Your task to perform on an android device: toggle location history Image 0: 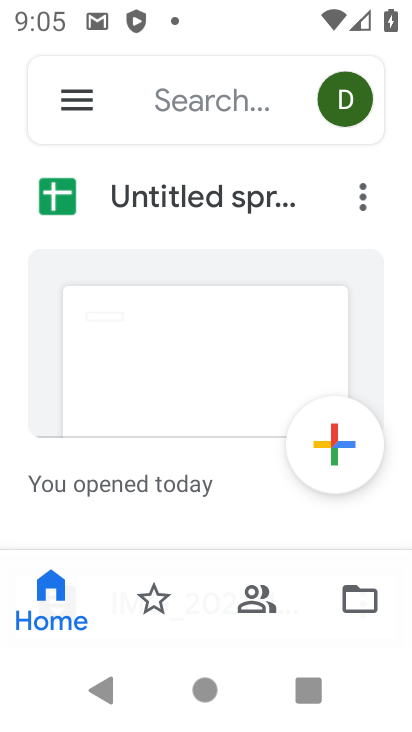
Step 0: press home button
Your task to perform on an android device: toggle location history Image 1: 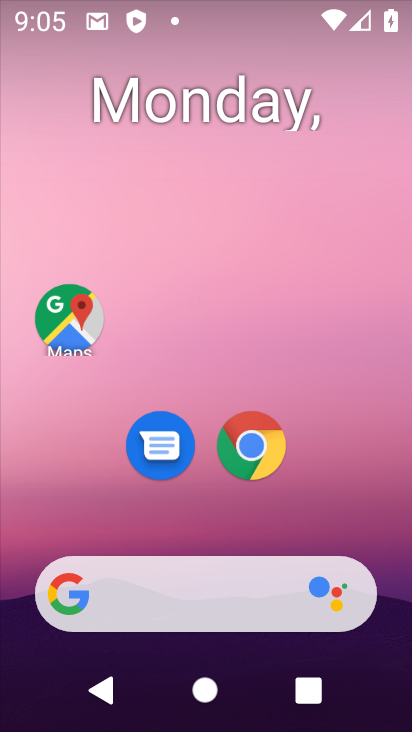
Step 1: drag from (245, 719) to (249, 39)
Your task to perform on an android device: toggle location history Image 2: 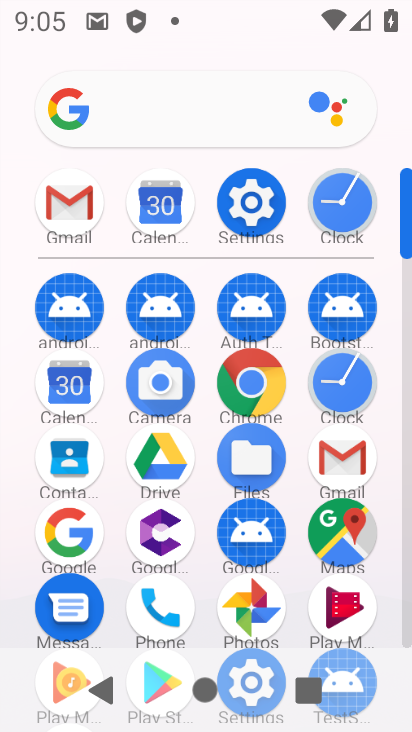
Step 2: click (249, 193)
Your task to perform on an android device: toggle location history Image 3: 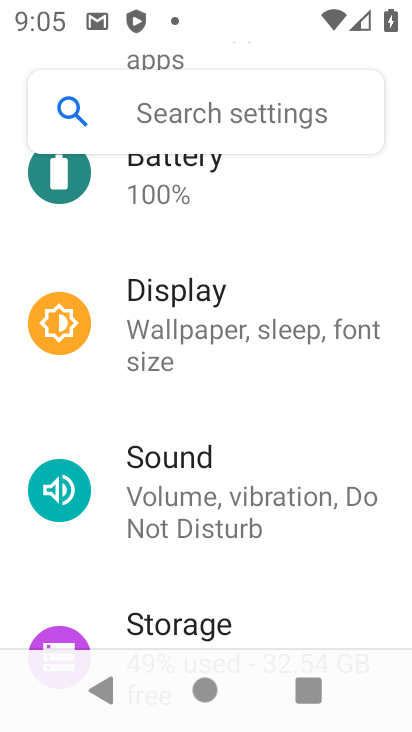
Step 3: drag from (251, 580) to (242, 187)
Your task to perform on an android device: toggle location history Image 4: 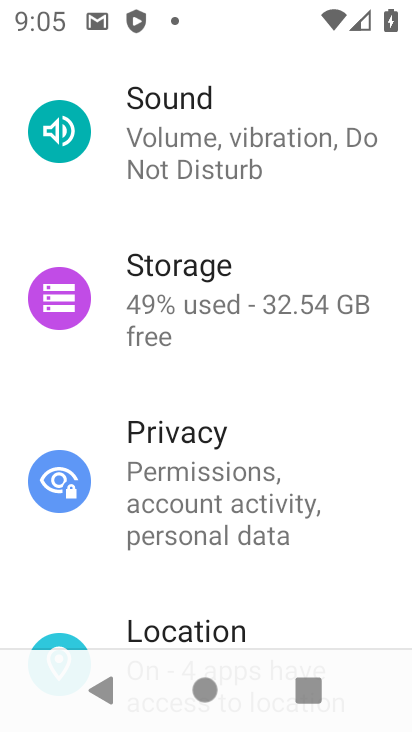
Step 4: click (248, 628)
Your task to perform on an android device: toggle location history Image 5: 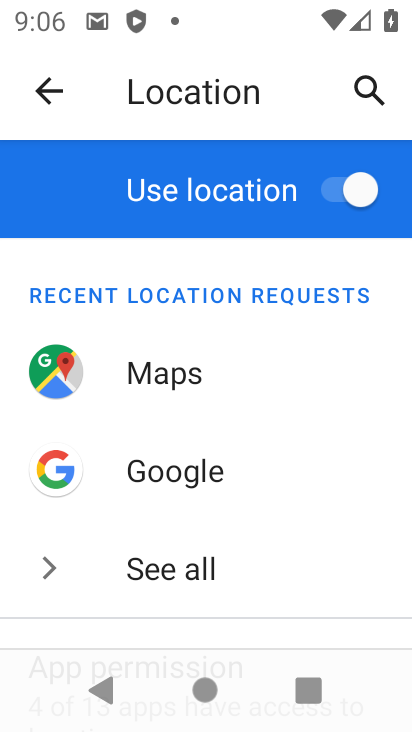
Step 5: click (214, 82)
Your task to perform on an android device: toggle location history Image 6: 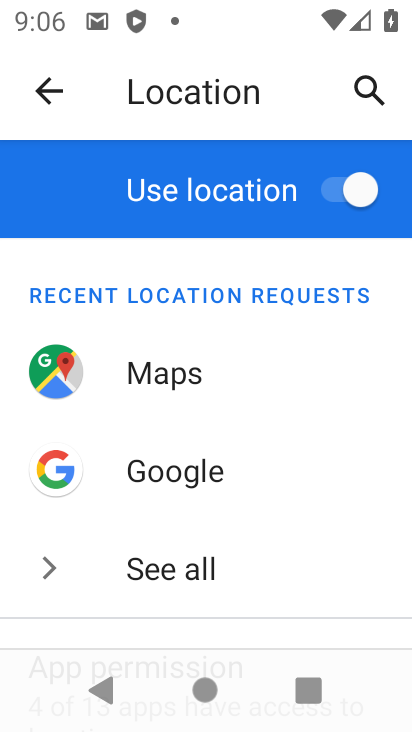
Step 6: drag from (275, 565) to (309, 14)
Your task to perform on an android device: toggle location history Image 7: 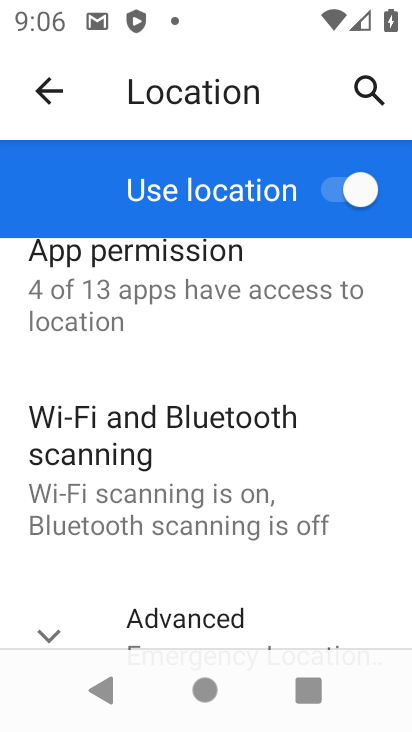
Step 7: drag from (249, 611) to (236, 84)
Your task to perform on an android device: toggle location history Image 8: 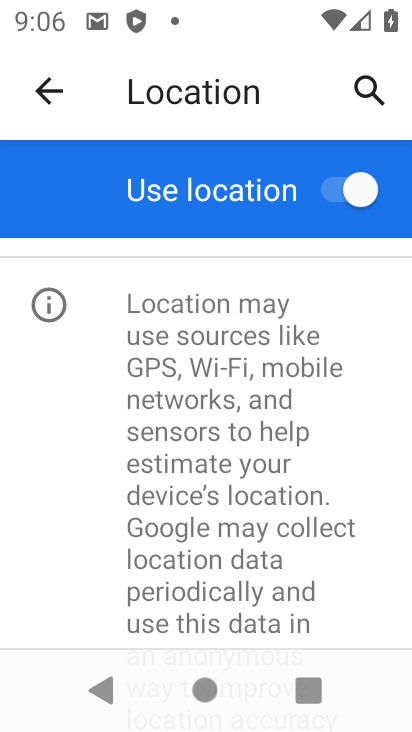
Step 8: drag from (257, 389) to (238, 643)
Your task to perform on an android device: toggle location history Image 9: 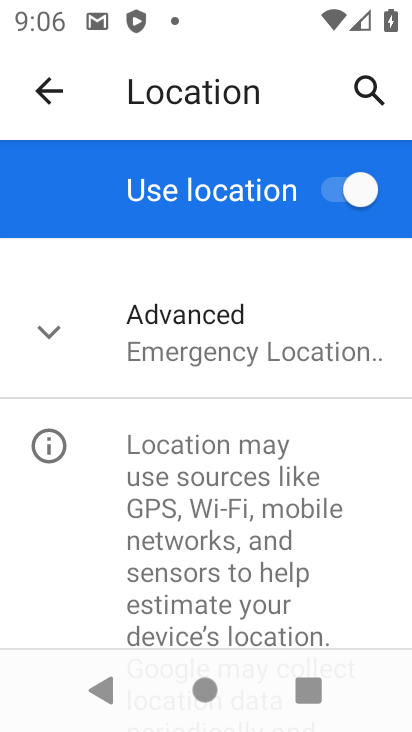
Step 9: click (232, 359)
Your task to perform on an android device: toggle location history Image 10: 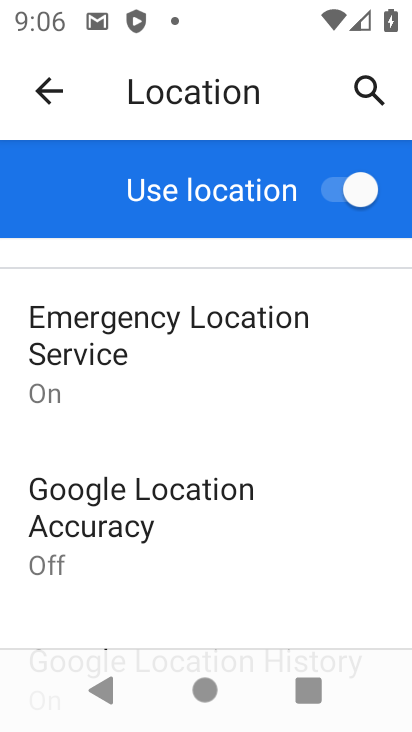
Step 10: drag from (198, 614) to (199, 216)
Your task to perform on an android device: toggle location history Image 11: 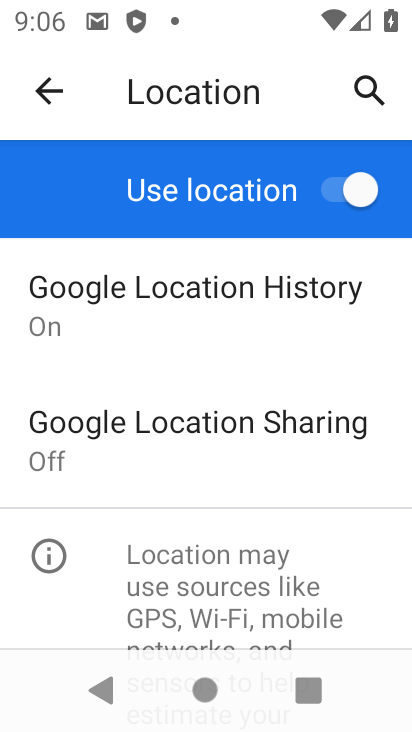
Step 11: click (300, 300)
Your task to perform on an android device: toggle location history Image 12: 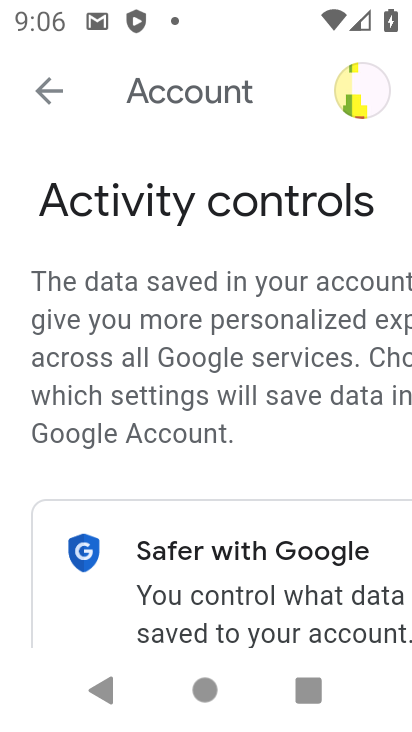
Step 12: drag from (216, 479) to (191, 0)
Your task to perform on an android device: toggle location history Image 13: 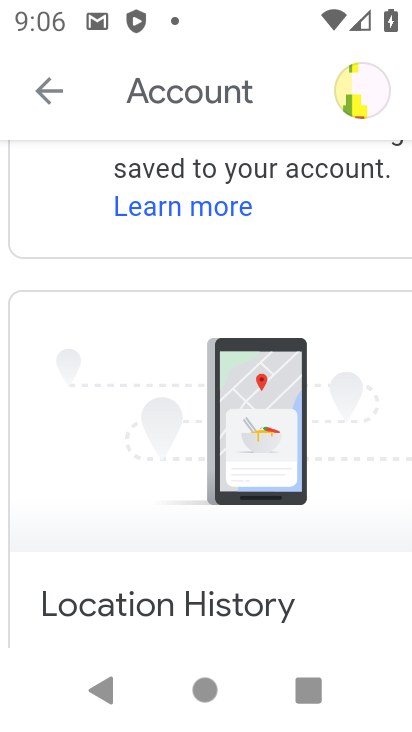
Step 13: drag from (151, 599) to (98, 14)
Your task to perform on an android device: toggle location history Image 14: 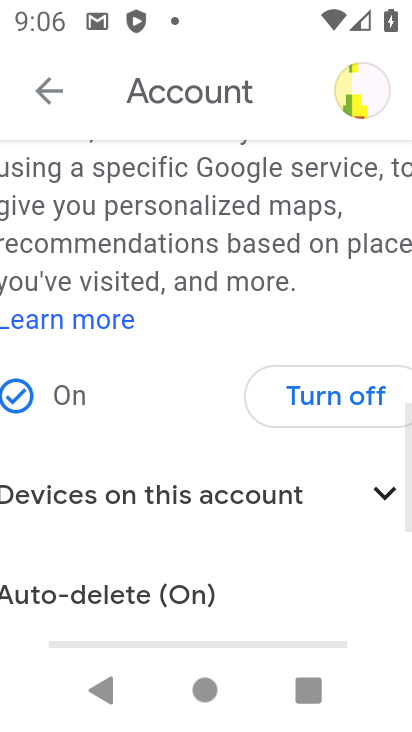
Step 14: drag from (179, 532) to (197, 32)
Your task to perform on an android device: toggle location history Image 15: 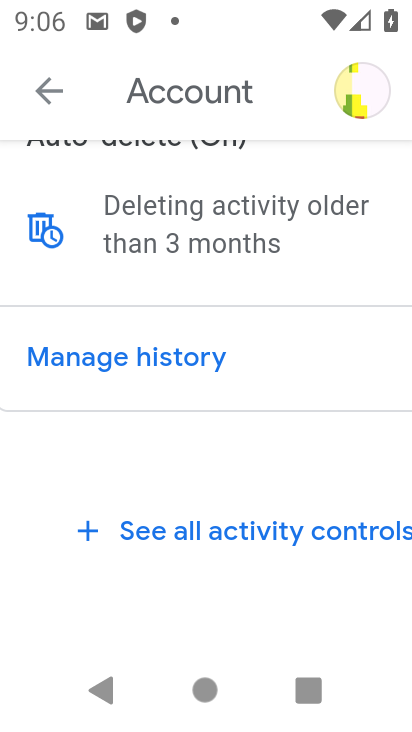
Step 15: drag from (324, 488) to (38, 235)
Your task to perform on an android device: toggle location history Image 16: 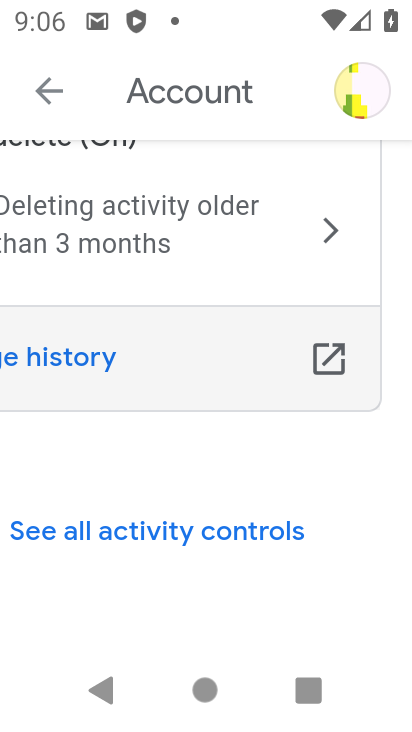
Step 16: drag from (169, 252) to (128, 675)
Your task to perform on an android device: toggle location history Image 17: 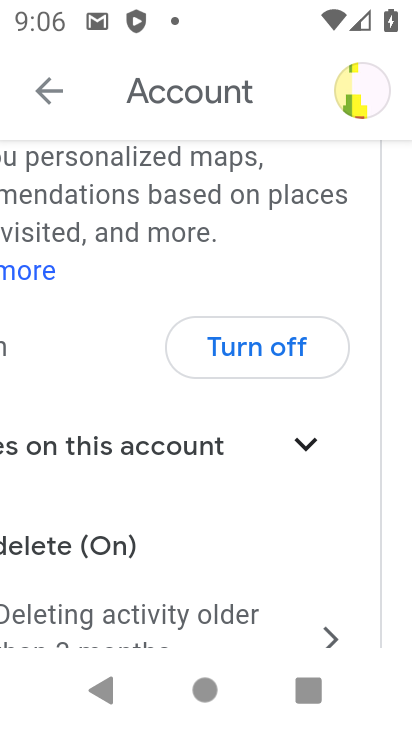
Step 17: click (259, 345)
Your task to perform on an android device: toggle location history Image 18: 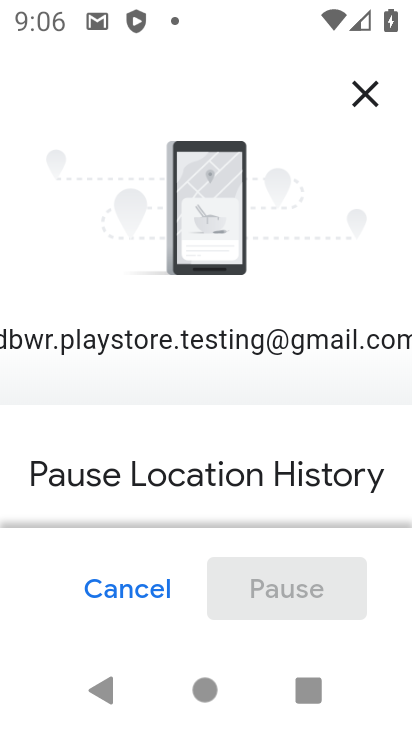
Step 18: drag from (340, 387) to (329, 64)
Your task to perform on an android device: toggle location history Image 19: 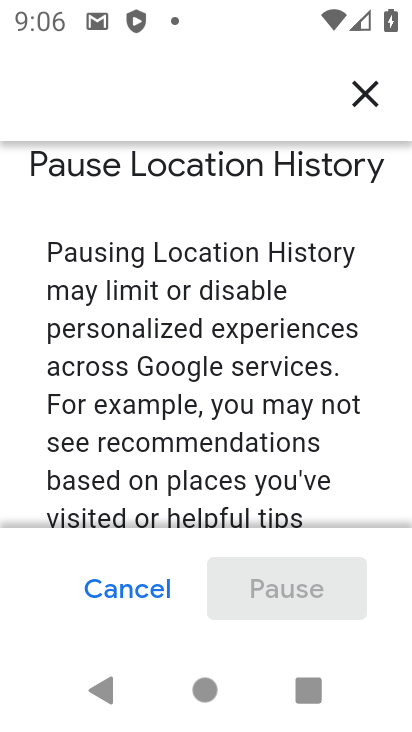
Step 19: drag from (307, 511) to (265, 2)
Your task to perform on an android device: toggle location history Image 20: 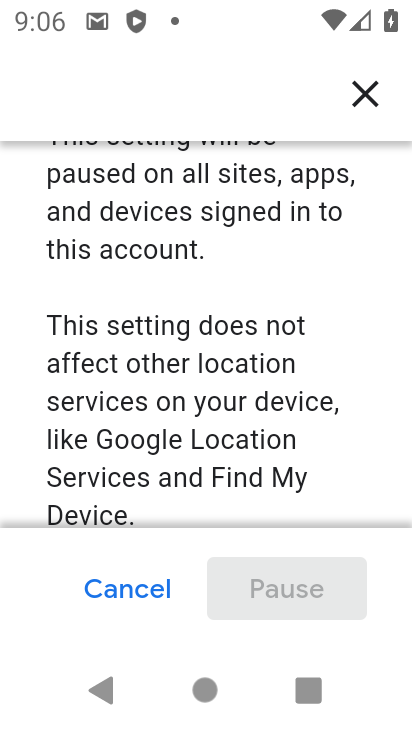
Step 20: drag from (288, 471) to (211, 3)
Your task to perform on an android device: toggle location history Image 21: 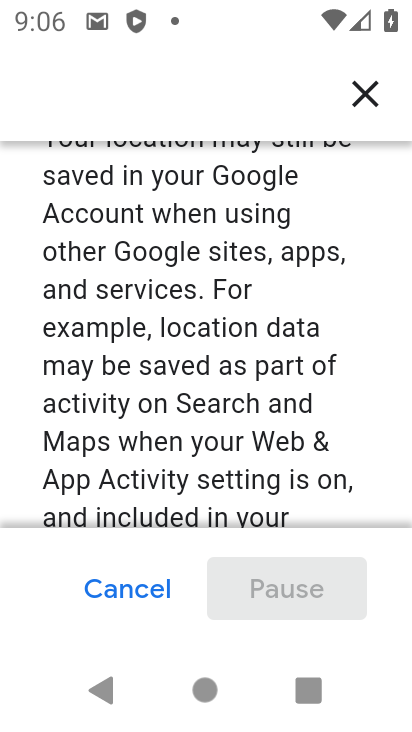
Step 21: drag from (275, 335) to (287, 119)
Your task to perform on an android device: toggle location history Image 22: 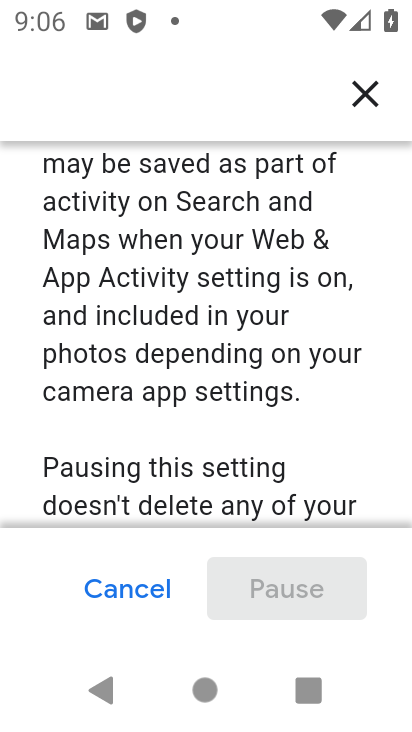
Step 22: drag from (343, 502) to (144, 33)
Your task to perform on an android device: toggle location history Image 23: 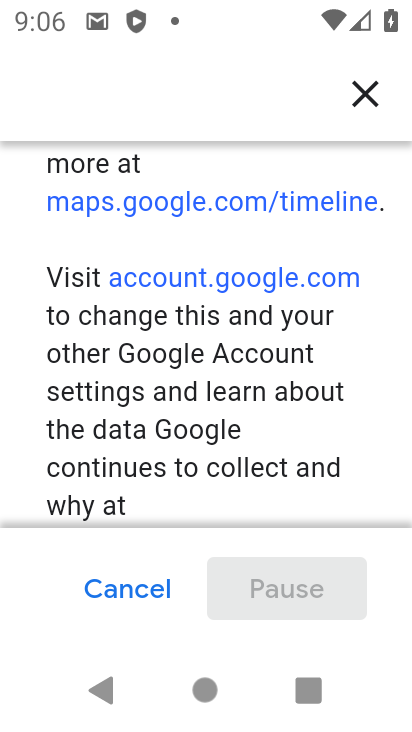
Step 23: drag from (290, 499) to (266, 113)
Your task to perform on an android device: toggle location history Image 24: 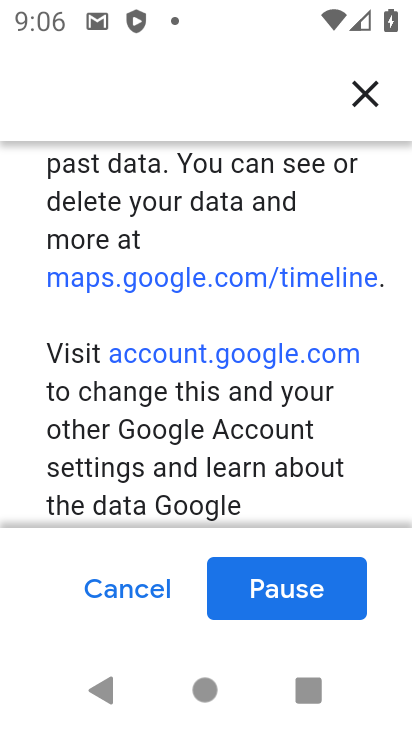
Step 24: drag from (250, 467) to (140, 92)
Your task to perform on an android device: toggle location history Image 25: 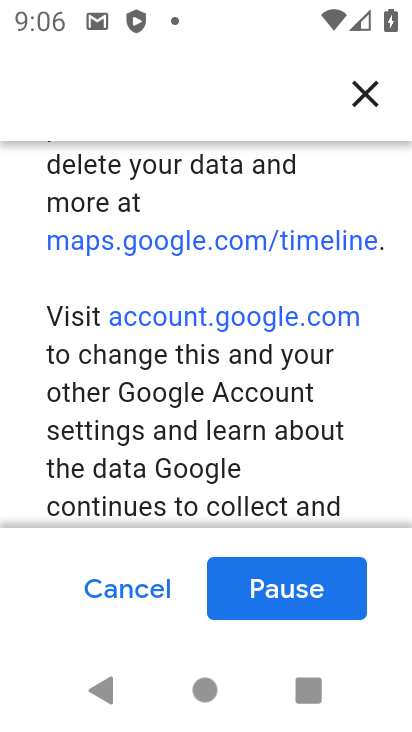
Step 25: click (275, 585)
Your task to perform on an android device: toggle location history Image 26: 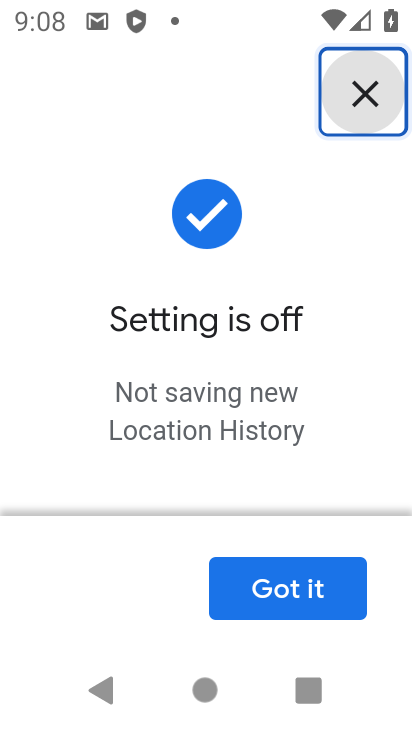
Step 26: drag from (213, 516) to (222, 109)
Your task to perform on an android device: toggle location history Image 27: 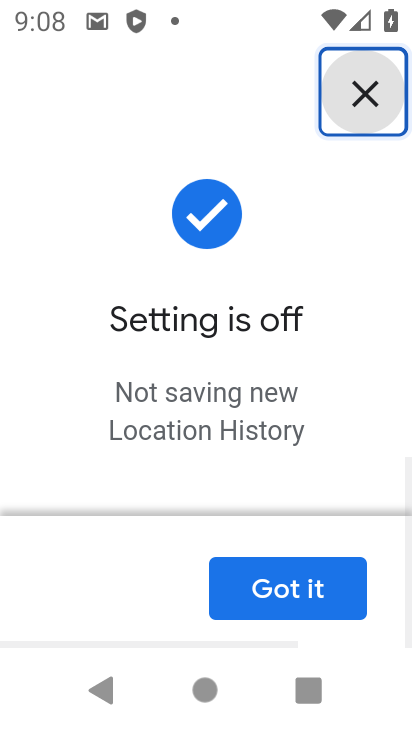
Step 27: click (290, 579)
Your task to perform on an android device: toggle location history Image 28: 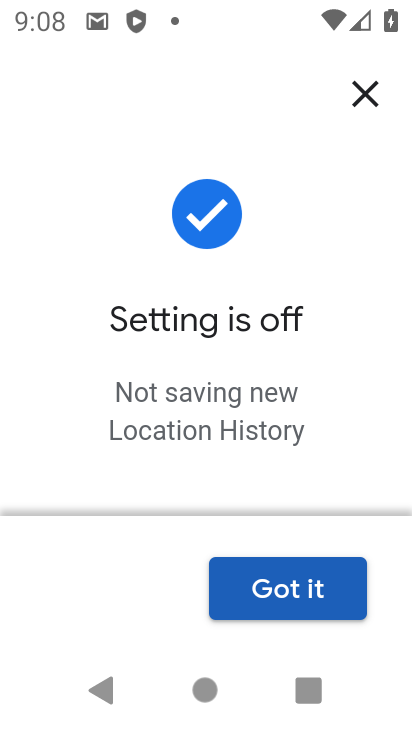
Step 28: task complete